Your task to perform on an android device: find which apps use the phone's location Image 0: 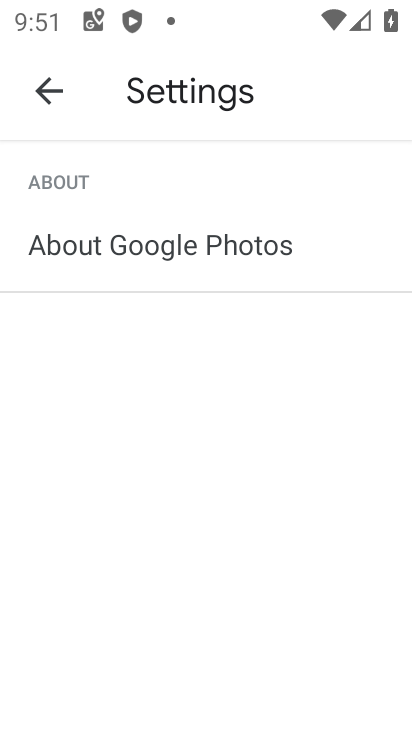
Step 0: press home button
Your task to perform on an android device: find which apps use the phone's location Image 1: 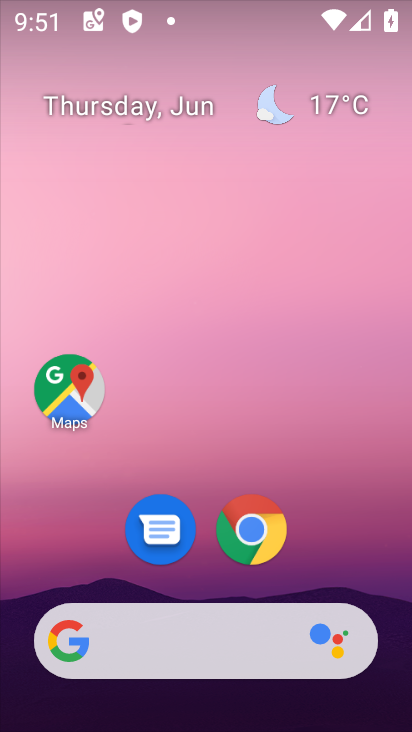
Step 1: drag from (376, 597) to (335, 29)
Your task to perform on an android device: find which apps use the phone's location Image 2: 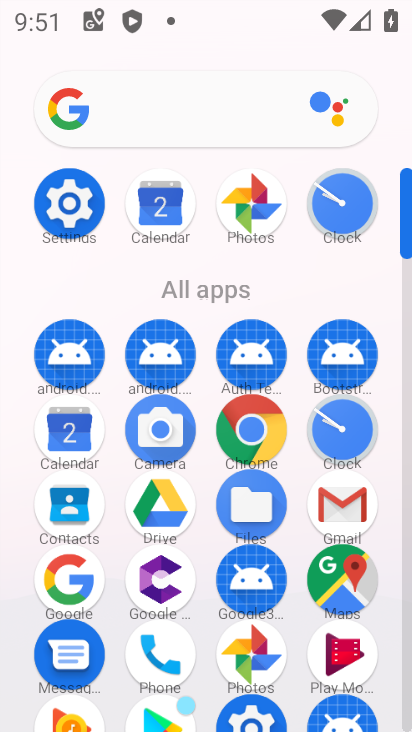
Step 2: click (405, 685)
Your task to perform on an android device: find which apps use the phone's location Image 3: 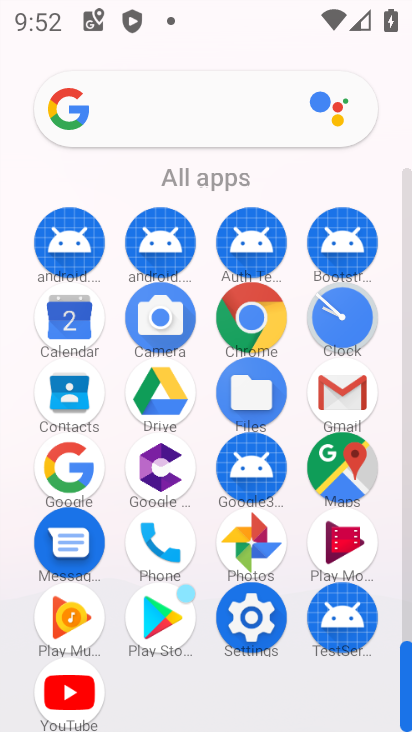
Step 3: click (252, 617)
Your task to perform on an android device: find which apps use the phone's location Image 4: 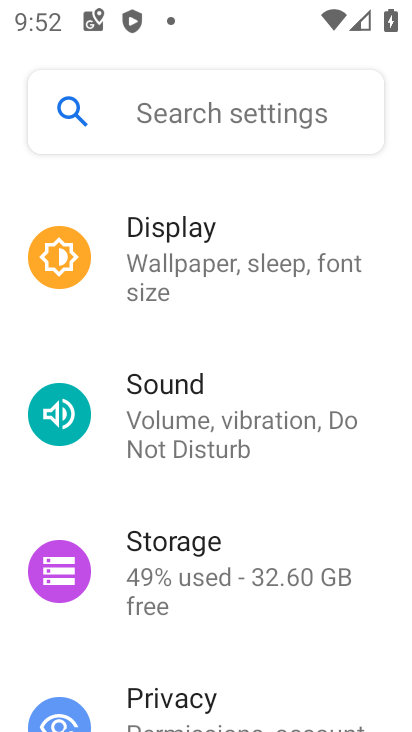
Step 4: drag from (356, 647) to (321, 222)
Your task to perform on an android device: find which apps use the phone's location Image 5: 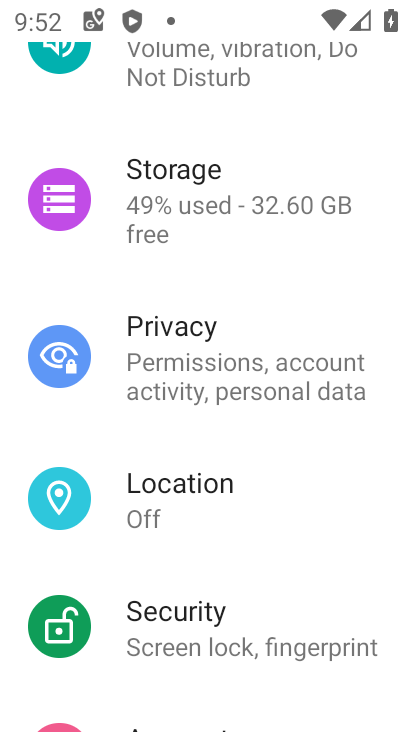
Step 5: click (164, 478)
Your task to perform on an android device: find which apps use the phone's location Image 6: 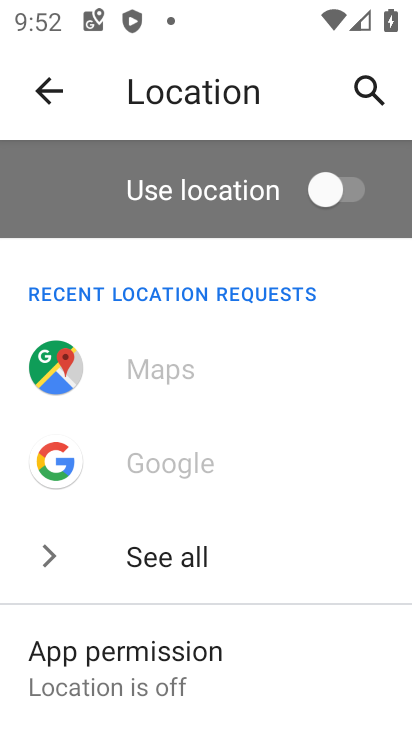
Step 6: drag from (253, 646) to (261, 302)
Your task to perform on an android device: find which apps use the phone's location Image 7: 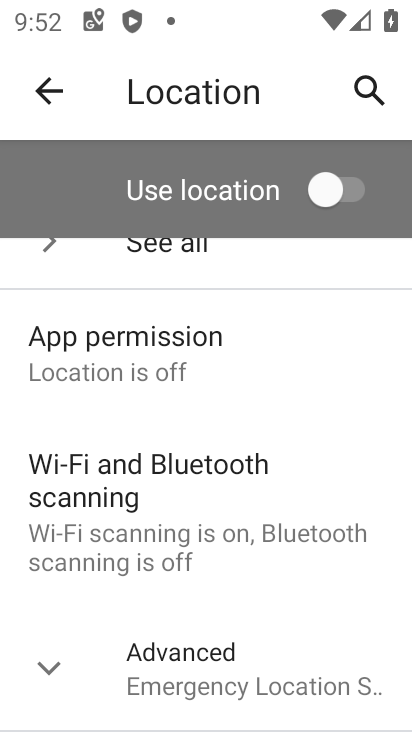
Step 7: click (91, 358)
Your task to perform on an android device: find which apps use the phone's location Image 8: 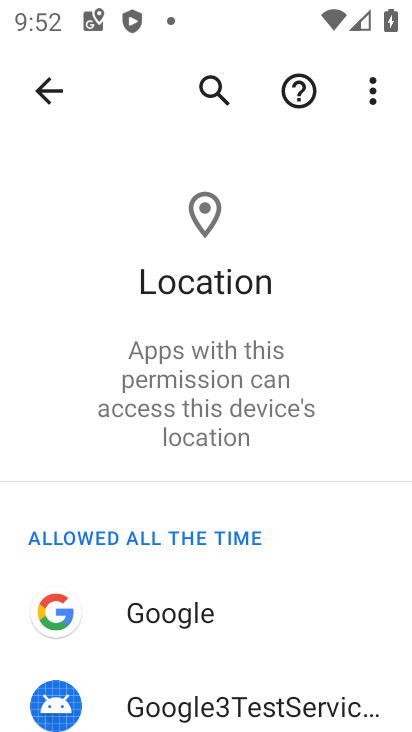
Step 8: drag from (273, 629) to (279, 202)
Your task to perform on an android device: find which apps use the phone's location Image 9: 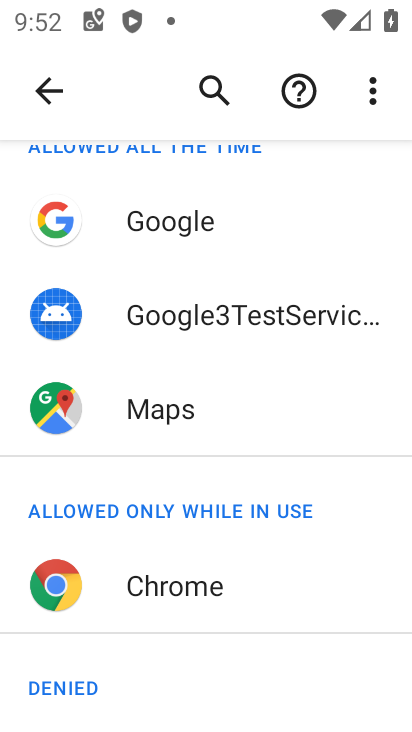
Step 9: drag from (280, 601) to (267, 89)
Your task to perform on an android device: find which apps use the phone's location Image 10: 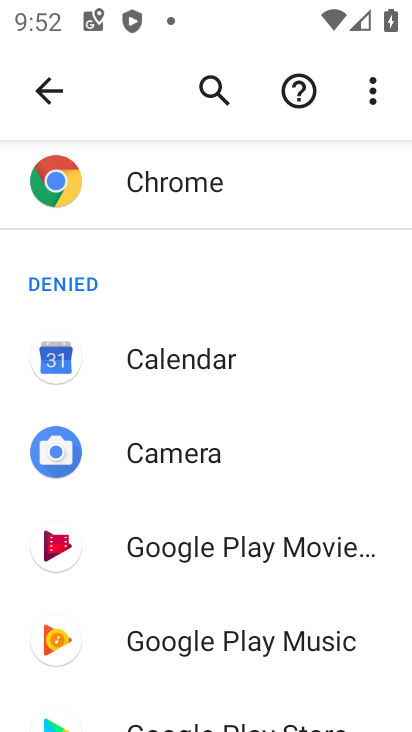
Step 10: drag from (277, 553) to (266, 110)
Your task to perform on an android device: find which apps use the phone's location Image 11: 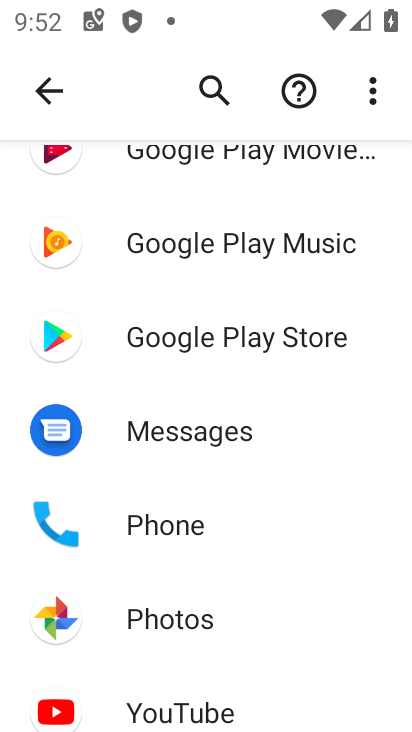
Step 11: drag from (285, 625) to (265, 153)
Your task to perform on an android device: find which apps use the phone's location Image 12: 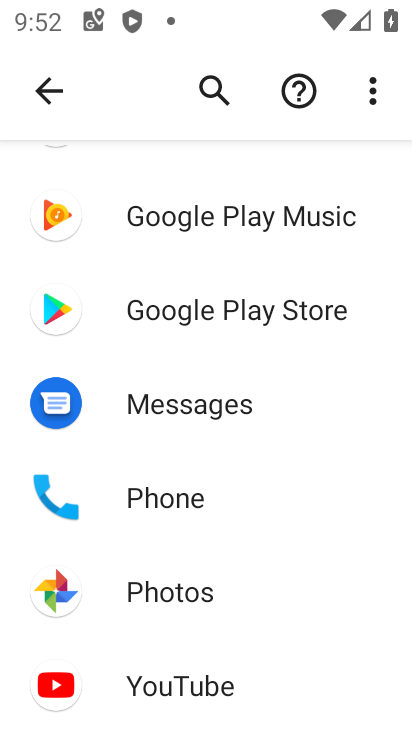
Step 12: click (151, 688)
Your task to perform on an android device: find which apps use the phone's location Image 13: 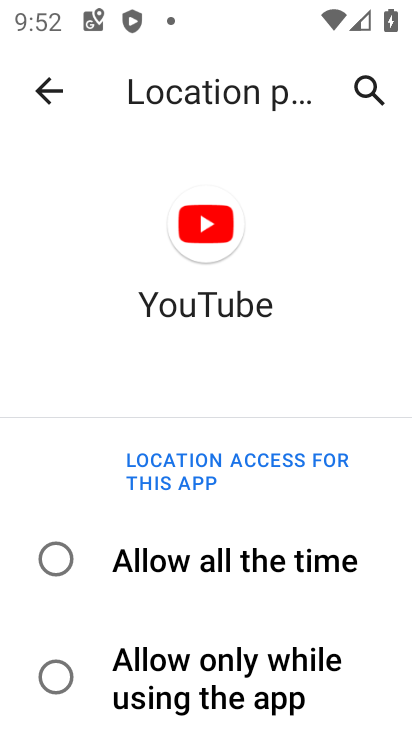
Step 13: task complete